Your task to perform on an android device: Open location settings Image 0: 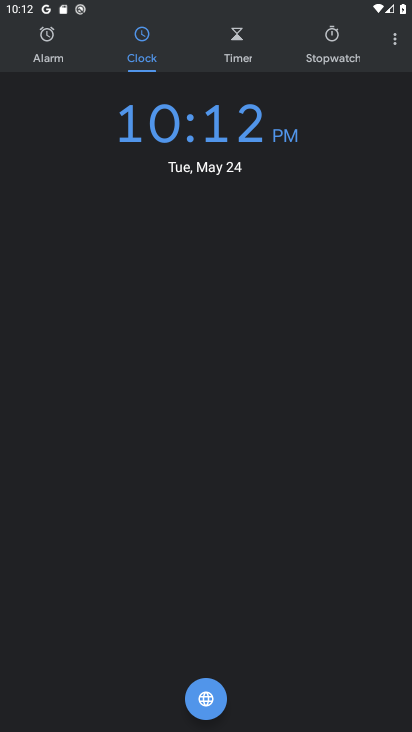
Step 0: press home button
Your task to perform on an android device: Open location settings Image 1: 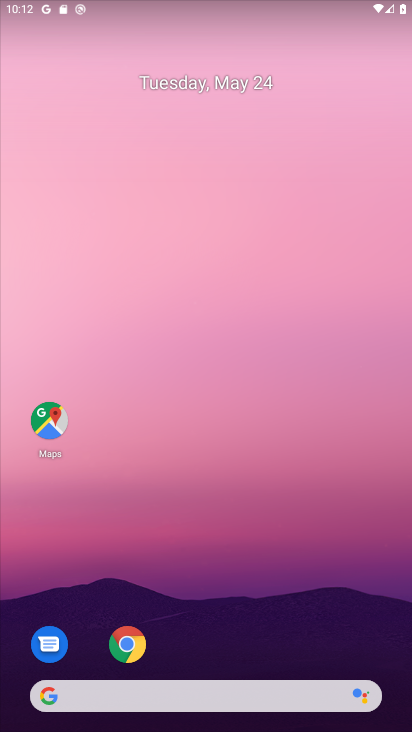
Step 1: drag from (227, 601) to (148, 238)
Your task to perform on an android device: Open location settings Image 2: 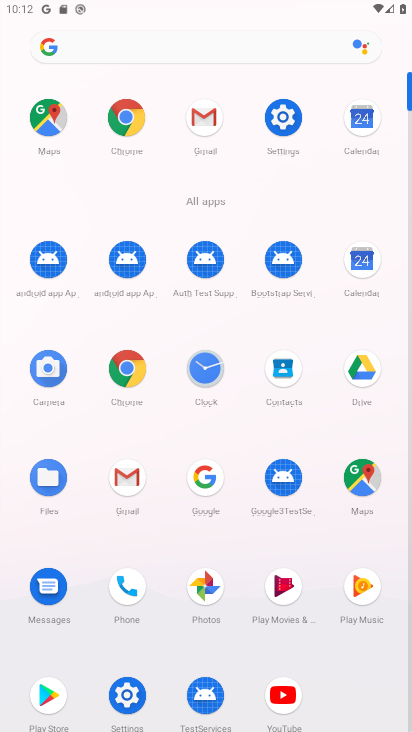
Step 2: click (286, 118)
Your task to perform on an android device: Open location settings Image 3: 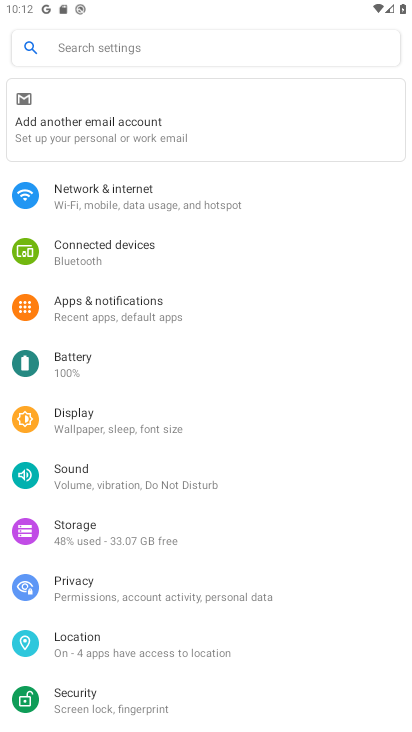
Step 3: click (79, 637)
Your task to perform on an android device: Open location settings Image 4: 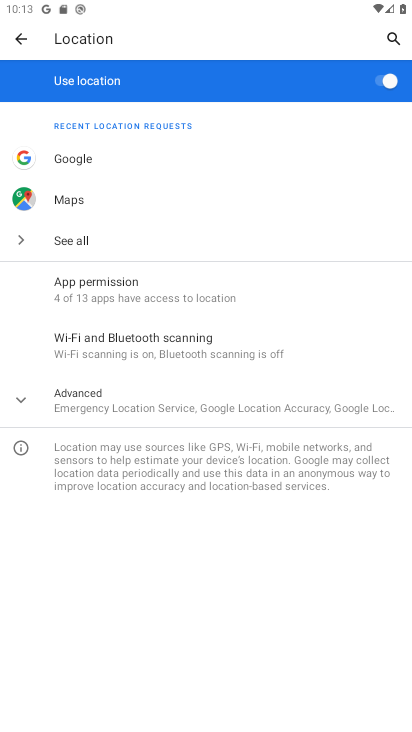
Step 4: task complete